Your task to perform on an android device: open app "Skype" Image 0: 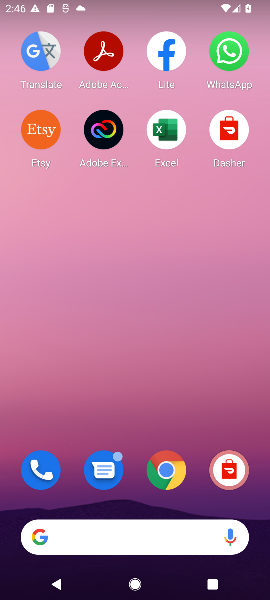
Step 0: drag from (99, 526) to (118, 3)
Your task to perform on an android device: open app "Skype" Image 1: 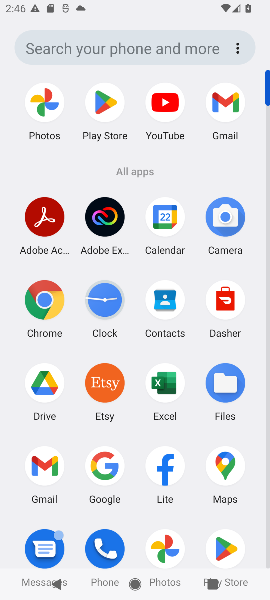
Step 1: click (224, 549)
Your task to perform on an android device: open app "Skype" Image 2: 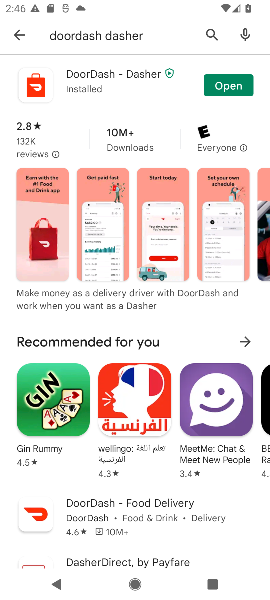
Step 2: click (18, 27)
Your task to perform on an android device: open app "Skype" Image 3: 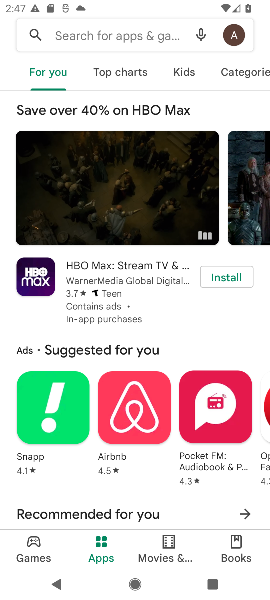
Step 3: click (112, 38)
Your task to perform on an android device: open app "Skype" Image 4: 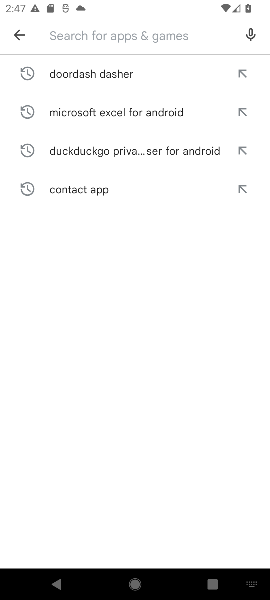
Step 4: type "Skype "
Your task to perform on an android device: open app "Skype" Image 5: 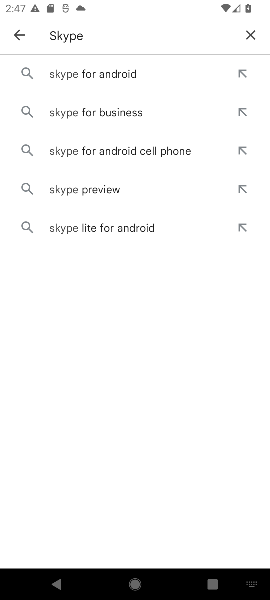
Step 5: click (124, 65)
Your task to perform on an android device: open app "Skype" Image 6: 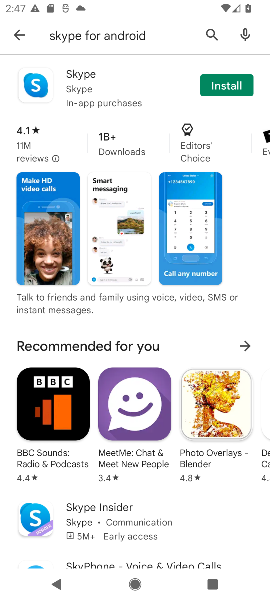
Step 6: click (224, 82)
Your task to perform on an android device: open app "Skype" Image 7: 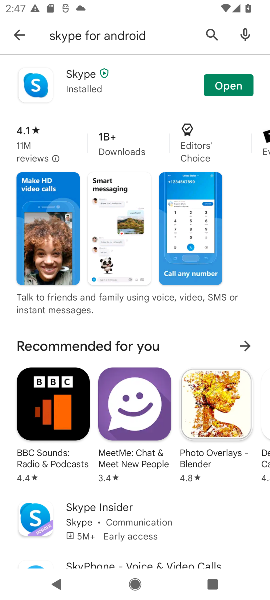
Step 7: click (210, 81)
Your task to perform on an android device: open app "Skype" Image 8: 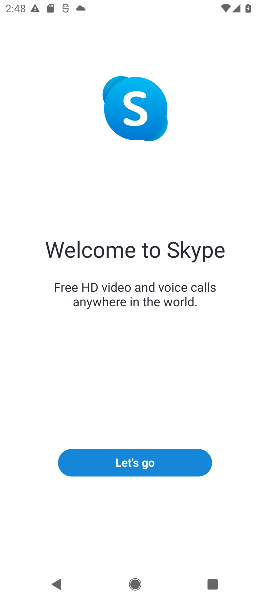
Step 8: task complete